Your task to perform on an android device: turn off notifications settings in the gmail app Image 0: 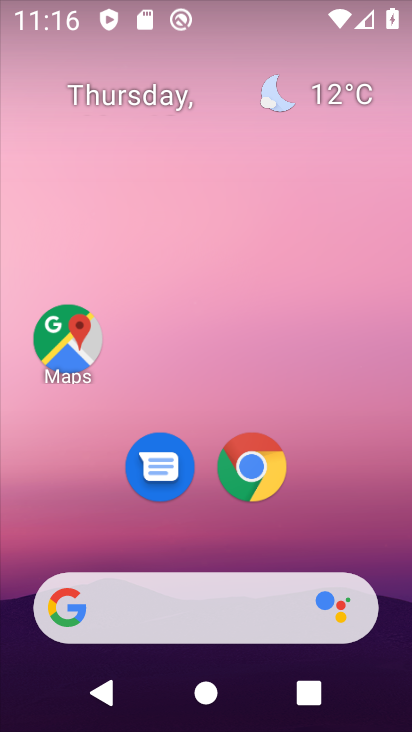
Step 0: drag from (377, 464) to (376, 57)
Your task to perform on an android device: turn off notifications settings in the gmail app Image 1: 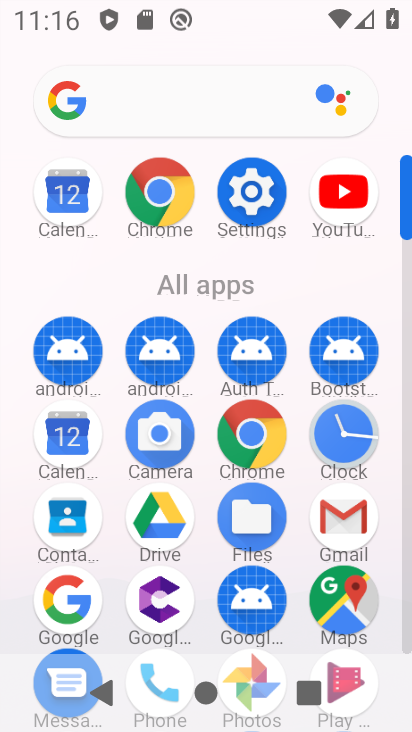
Step 1: click (351, 509)
Your task to perform on an android device: turn off notifications settings in the gmail app Image 2: 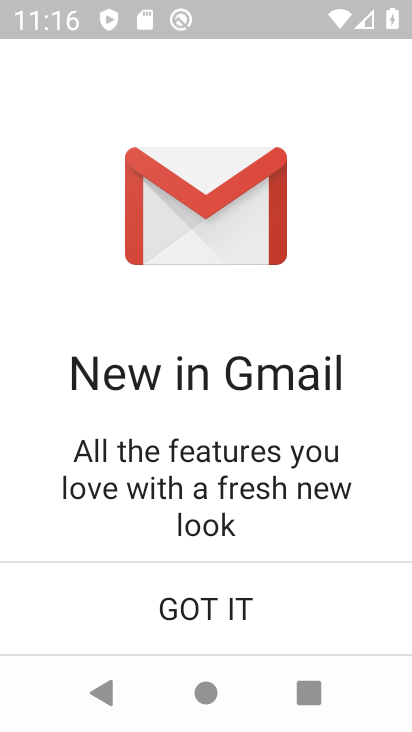
Step 2: click (227, 638)
Your task to perform on an android device: turn off notifications settings in the gmail app Image 3: 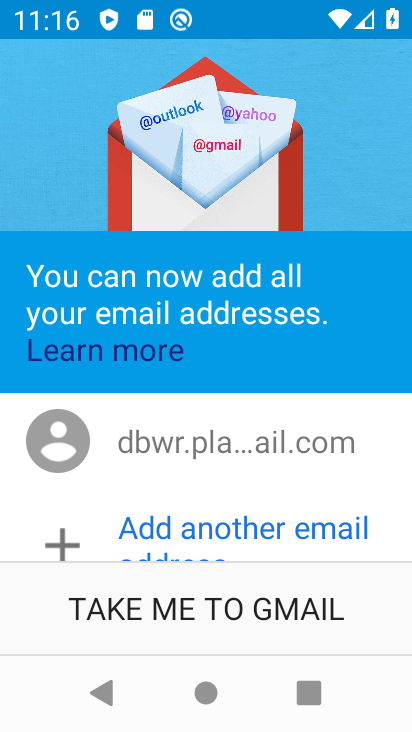
Step 3: click (185, 604)
Your task to perform on an android device: turn off notifications settings in the gmail app Image 4: 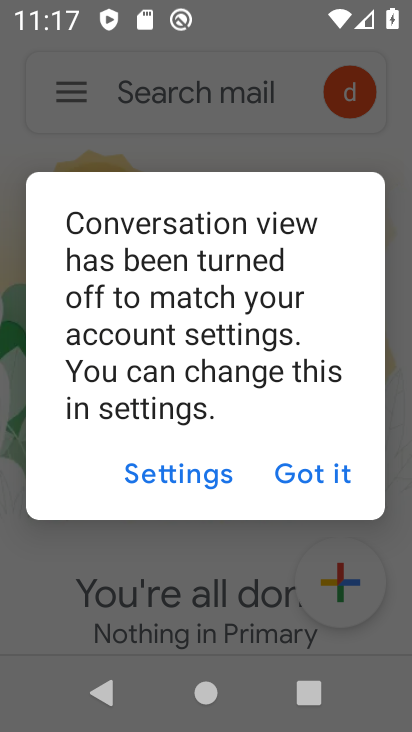
Step 4: click (317, 472)
Your task to perform on an android device: turn off notifications settings in the gmail app Image 5: 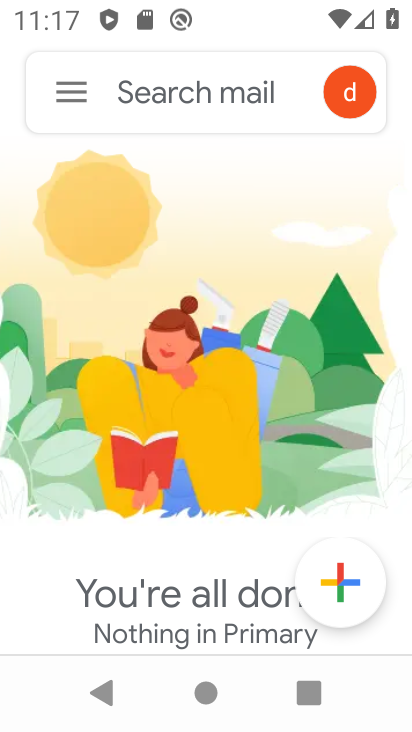
Step 5: click (77, 87)
Your task to perform on an android device: turn off notifications settings in the gmail app Image 6: 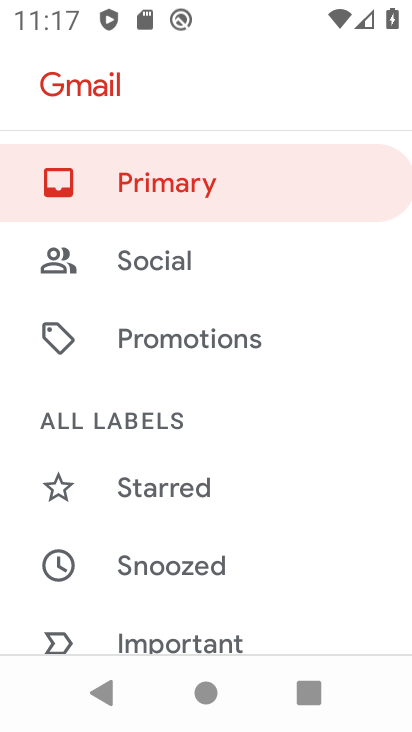
Step 6: drag from (197, 526) to (282, 35)
Your task to perform on an android device: turn off notifications settings in the gmail app Image 7: 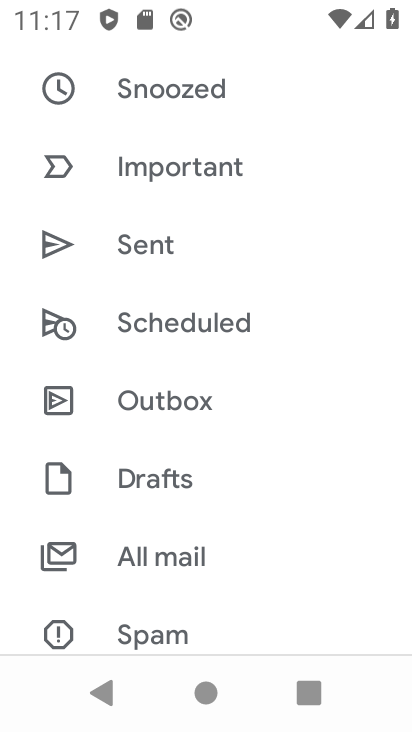
Step 7: drag from (209, 524) to (258, 145)
Your task to perform on an android device: turn off notifications settings in the gmail app Image 8: 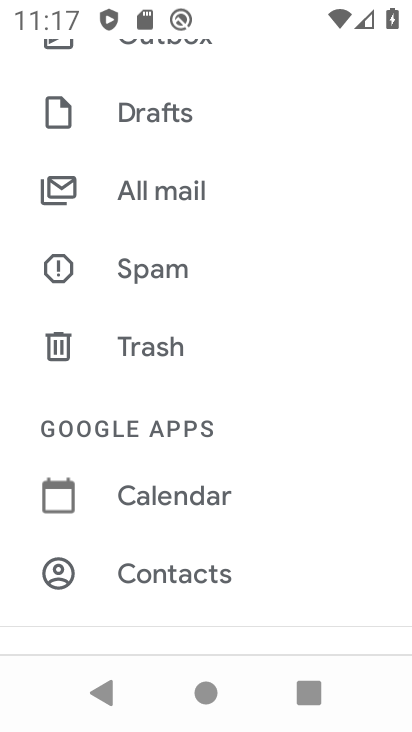
Step 8: drag from (125, 513) to (148, 165)
Your task to perform on an android device: turn off notifications settings in the gmail app Image 9: 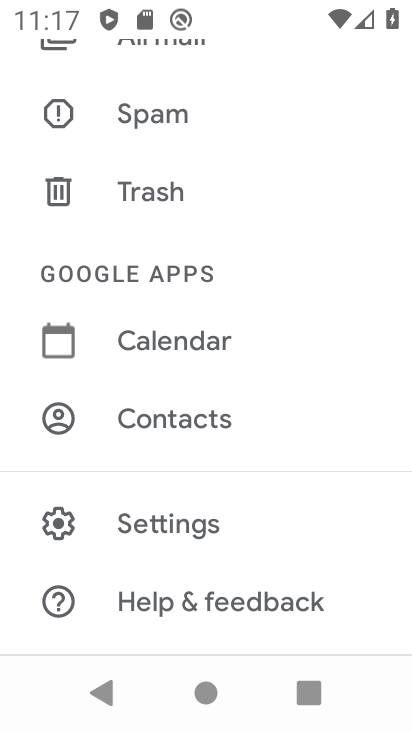
Step 9: click (158, 518)
Your task to perform on an android device: turn off notifications settings in the gmail app Image 10: 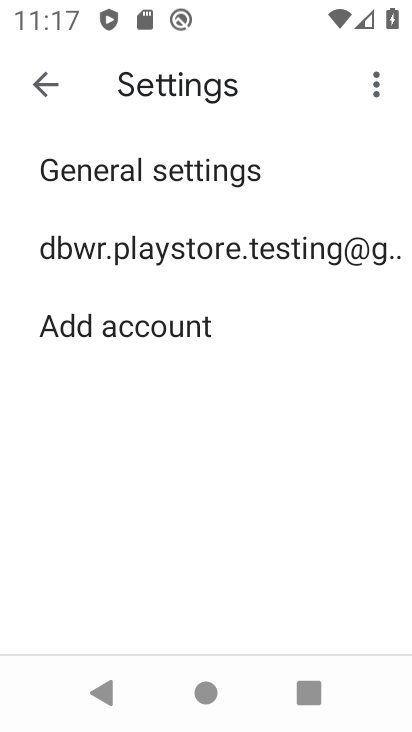
Step 10: click (125, 258)
Your task to perform on an android device: turn off notifications settings in the gmail app Image 11: 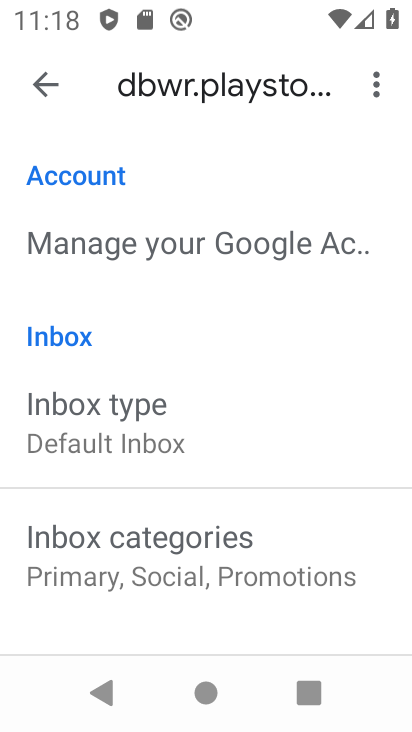
Step 11: drag from (128, 522) to (161, 176)
Your task to perform on an android device: turn off notifications settings in the gmail app Image 12: 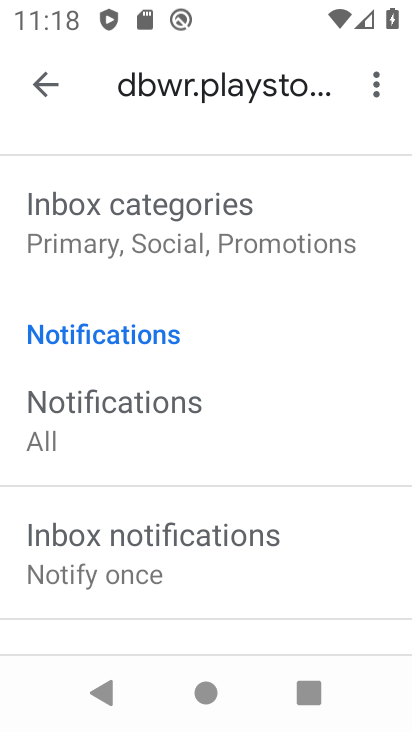
Step 12: click (122, 408)
Your task to perform on an android device: turn off notifications settings in the gmail app Image 13: 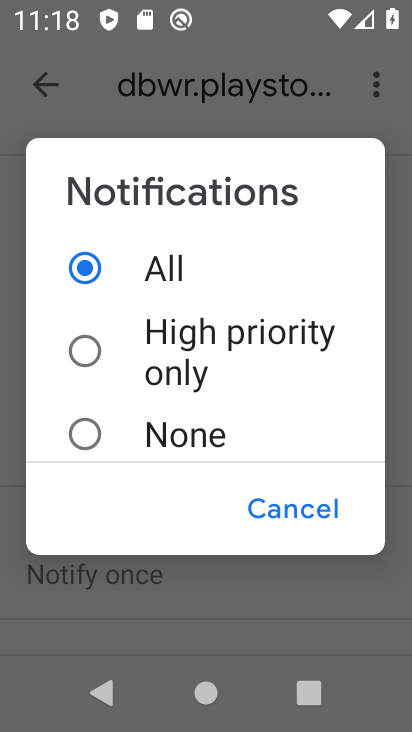
Step 13: click (103, 432)
Your task to perform on an android device: turn off notifications settings in the gmail app Image 14: 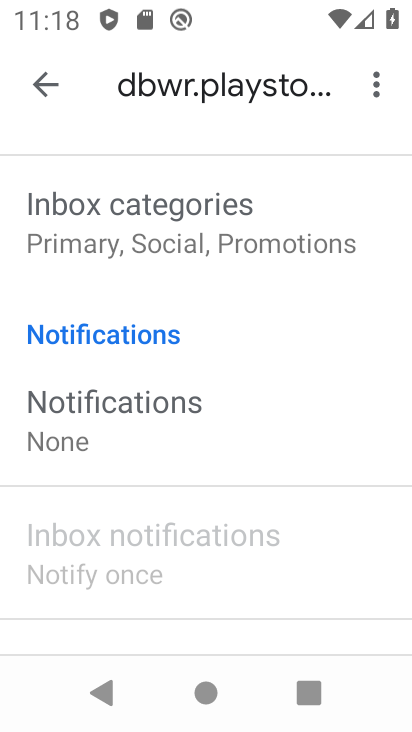
Step 14: task complete